Your task to perform on an android device: turn pop-ups off in chrome Image 0: 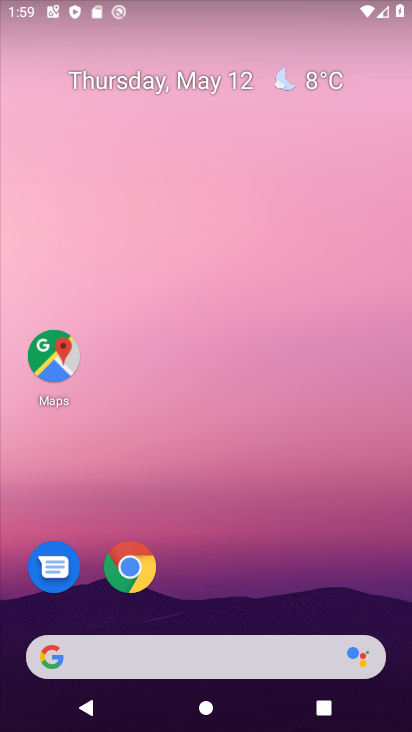
Step 0: press home button
Your task to perform on an android device: turn pop-ups off in chrome Image 1: 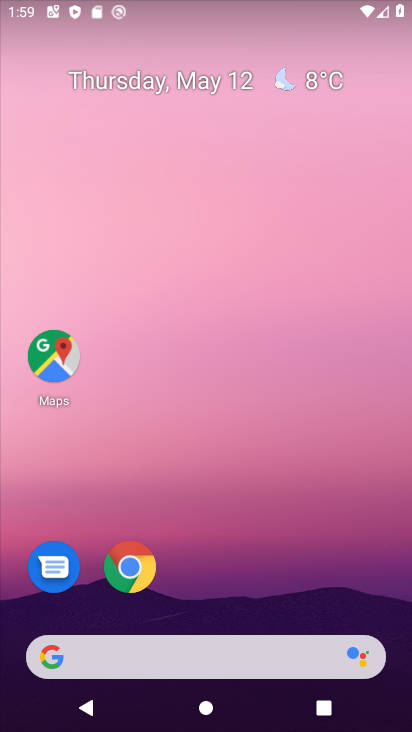
Step 1: drag from (215, 621) to (185, 4)
Your task to perform on an android device: turn pop-ups off in chrome Image 2: 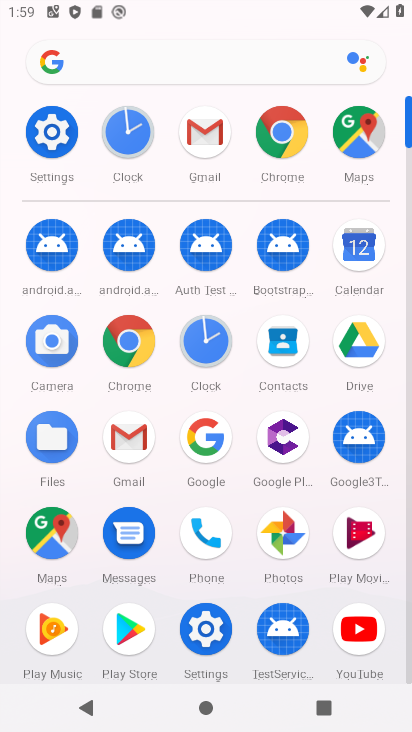
Step 2: click (52, 126)
Your task to perform on an android device: turn pop-ups off in chrome Image 3: 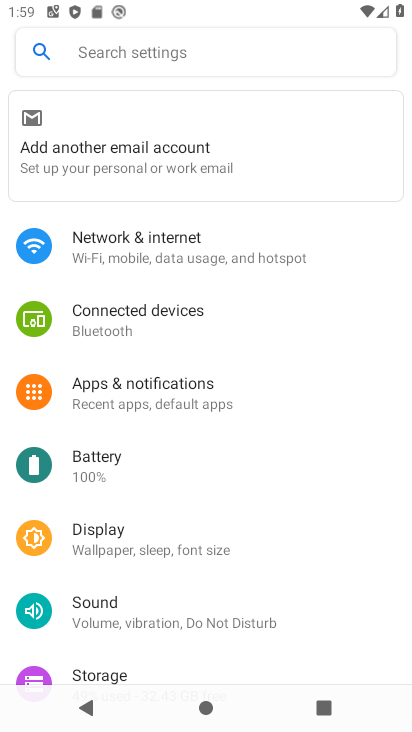
Step 3: press home button
Your task to perform on an android device: turn pop-ups off in chrome Image 4: 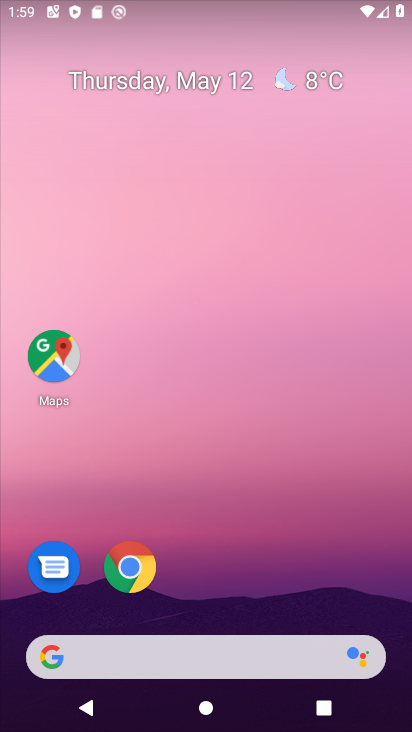
Step 4: click (131, 563)
Your task to perform on an android device: turn pop-ups off in chrome Image 5: 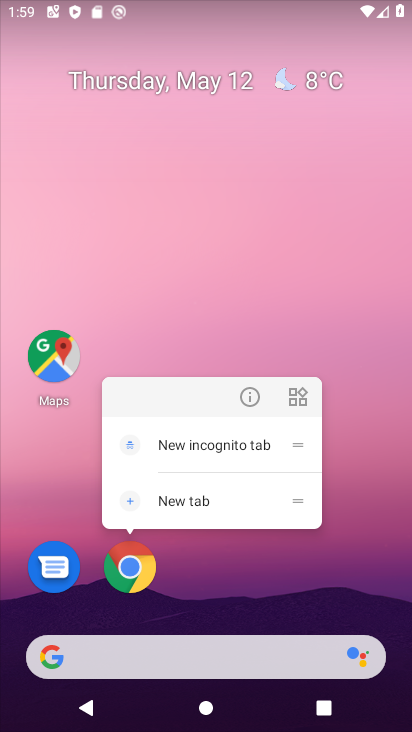
Step 5: click (130, 557)
Your task to perform on an android device: turn pop-ups off in chrome Image 6: 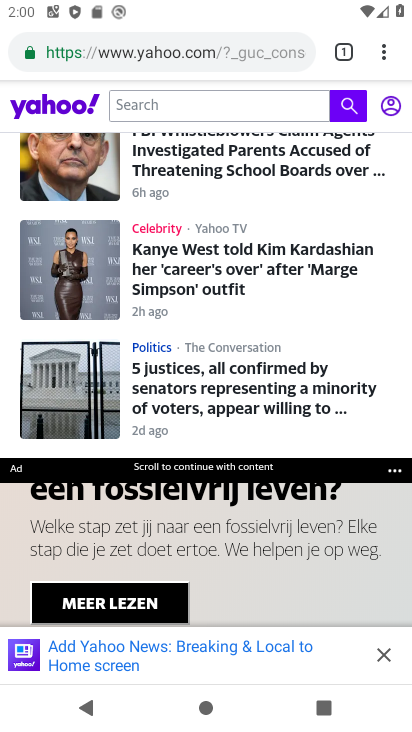
Step 6: click (384, 48)
Your task to perform on an android device: turn pop-ups off in chrome Image 7: 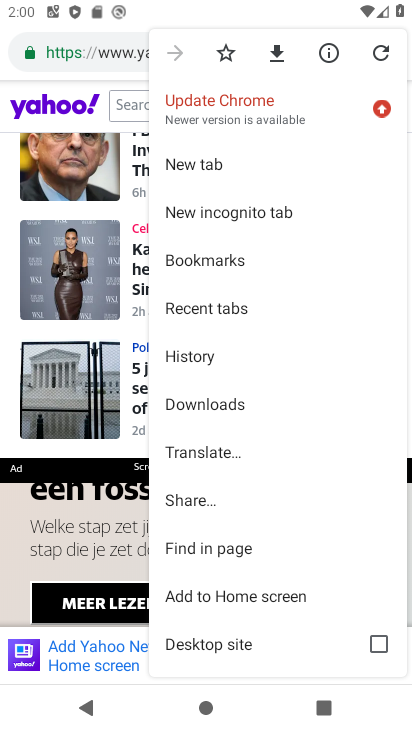
Step 7: drag from (250, 584) to (269, 242)
Your task to perform on an android device: turn pop-ups off in chrome Image 8: 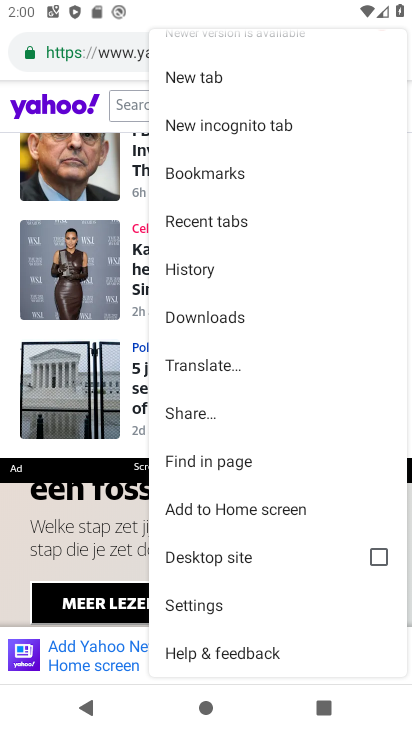
Step 8: click (231, 600)
Your task to perform on an android device: turn pop-ups off in chrome Image 9: 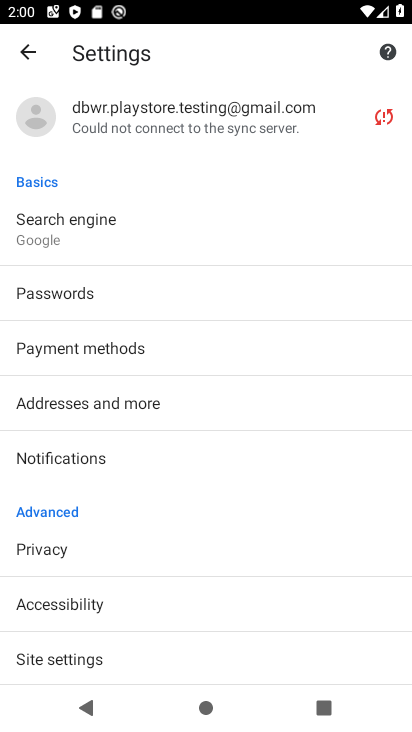
Step 9: drag from (145, 634) to (159, 163)
Your task to perform on an android device: turn pop-ups off in chrome Image 10: 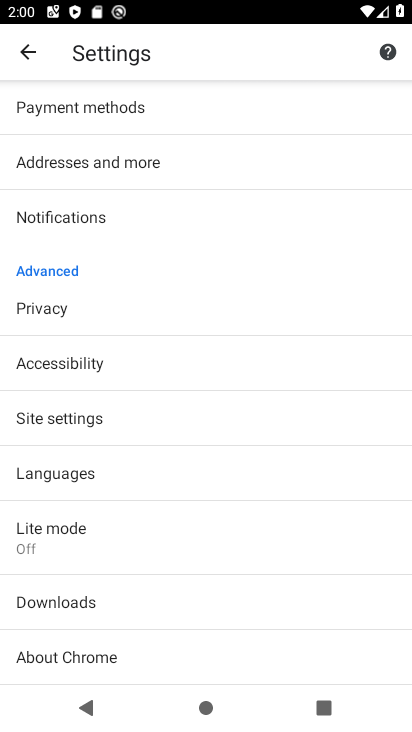
Step 10: click (125, 416)
Your task to perform on an android device: turn pop-ups off in chrome Image 11: 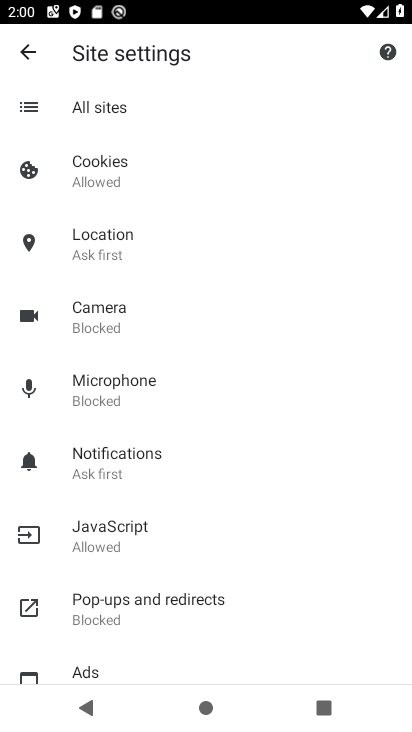
Step 11: click (147, 607)
Your task to perform on an android device: turn pop-ups off in chrome Image 12: 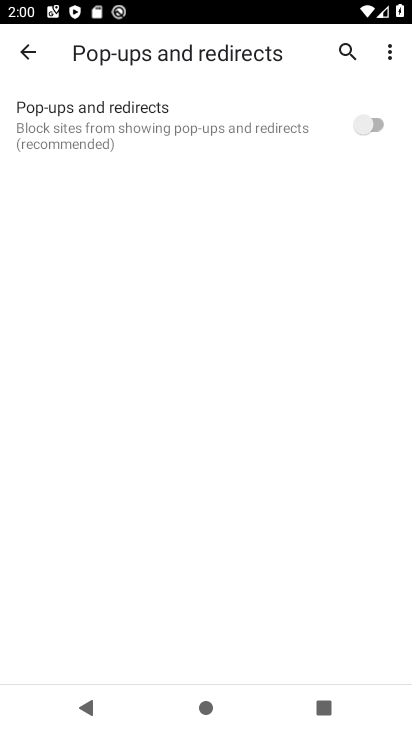
Step 12: task complete